Your task to perform on an android device: toggle improve location accuracy Image 0: 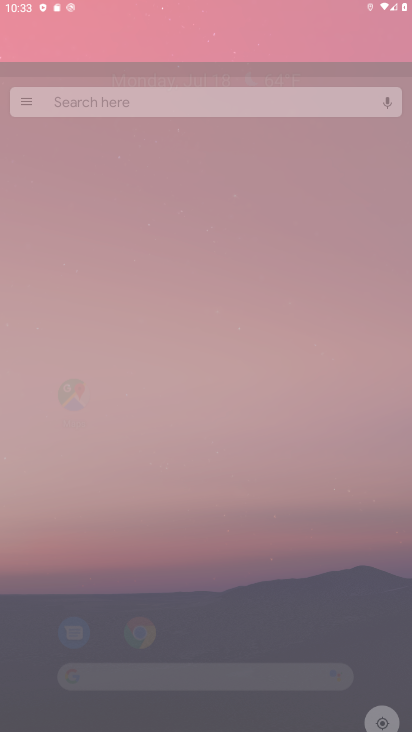
Step 0: click (326, 87)
Your task to perform on an android device: toggle improve location accuracy Image 1: 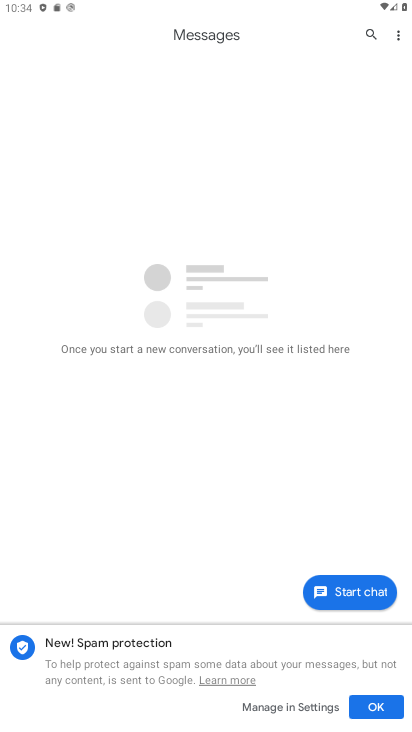
Step 1: press home button
Your task to perform on an android device: toggle improve location accuracy Image 2: 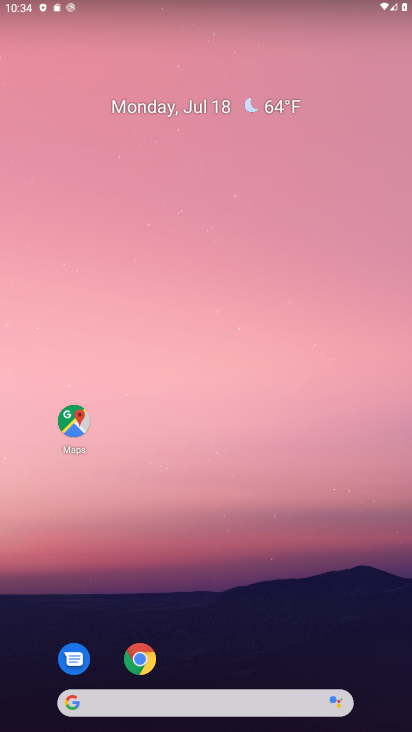
Step 2: drag from (182, 699) to (224, 31)
Your task to perform on an android device: toggle improve location accuracy Image 3: 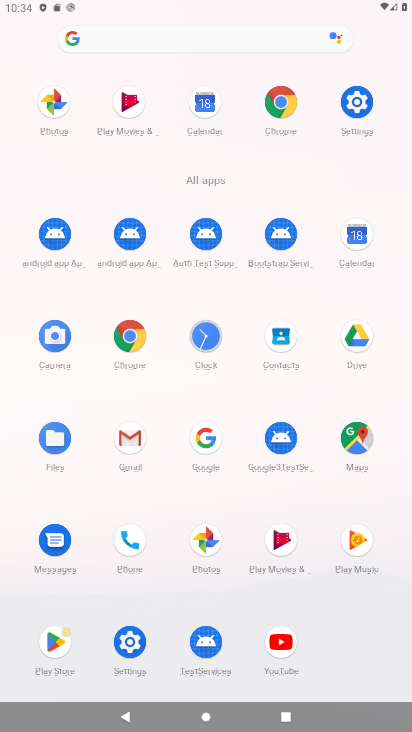
Step 3: click (353, 101)
Your task to perform on an android device: toggle improve location accuracy Image 4: 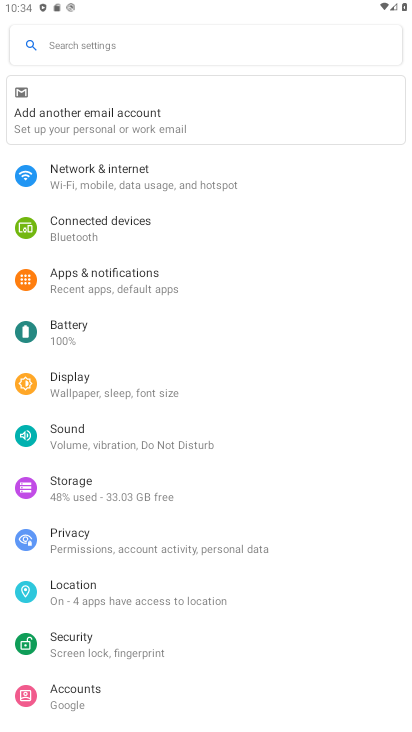
Step 4: click (127, 592)
Your task to perform on an android device: toggle improve location accuracy Image 5: 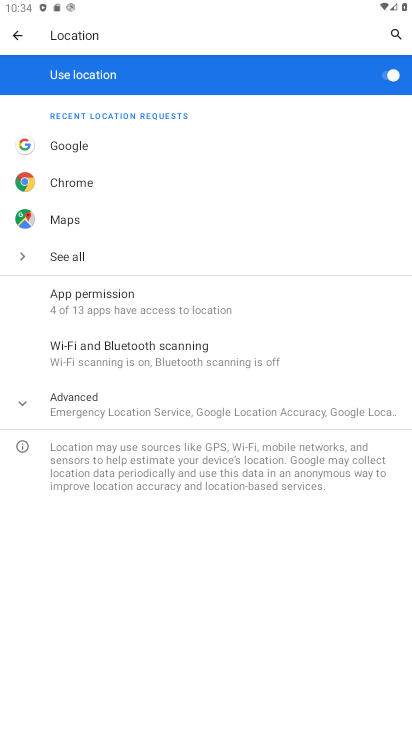
Step 5: click (161, 414)
Your task to perform on an android device: toggle improve location accuracy Image 6: 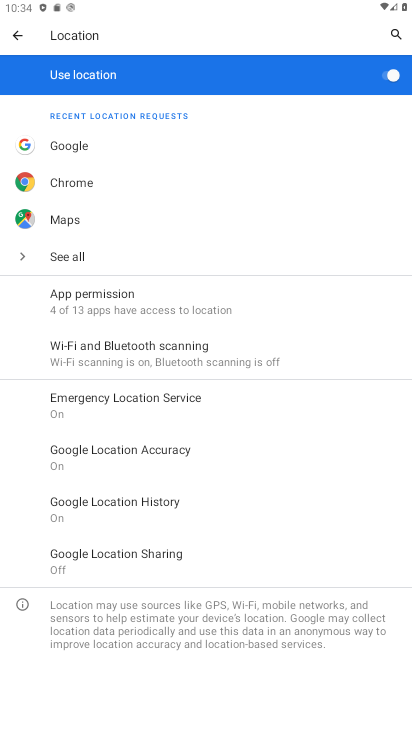
Step 6: click (163, 458)
Your task to perform on an android device: toggle improve location accuracy Image 7: 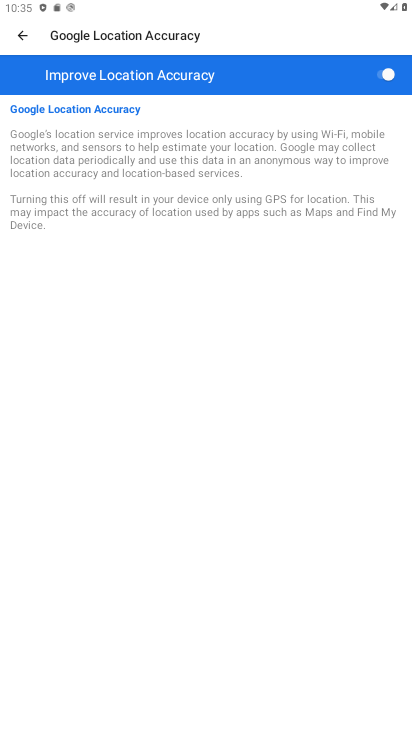
Step 7: click (390, 75)
Your task to perform on an android device: toggle improve location accuracy Image 8: 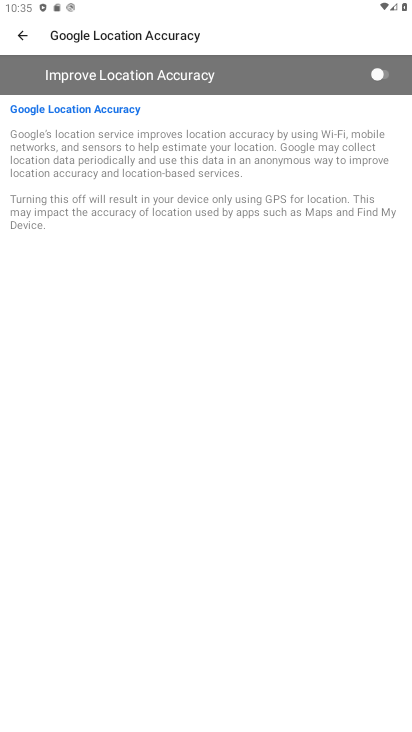
Step 8: task complete